Your task to perform on an android device: Open the calendar and show me this week's events? Image 0: 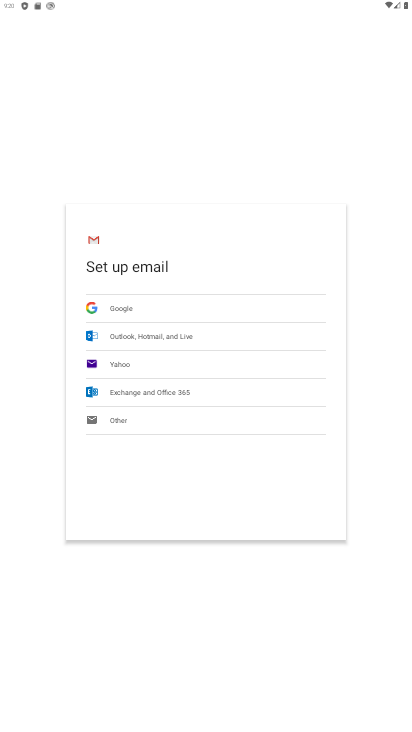
Step 0: press home button
Your task to perform on an android device: Open the calendar and show me this week's events? Image 1: 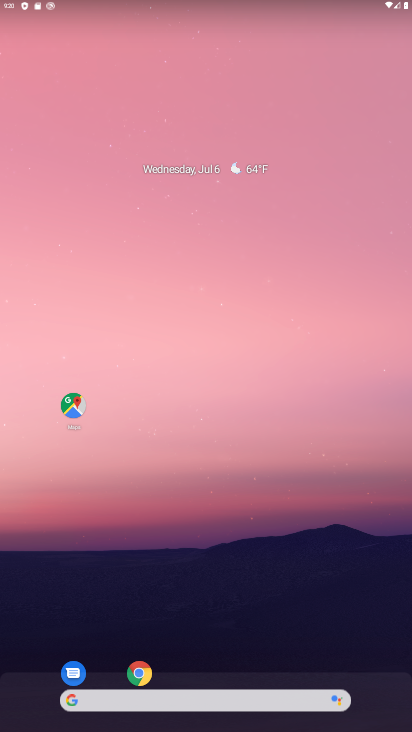
Step 1: drag from (186, 677) to (328, 3)
Your task to perform on an android device: Open the calendar and show me this week's events? Image 2: 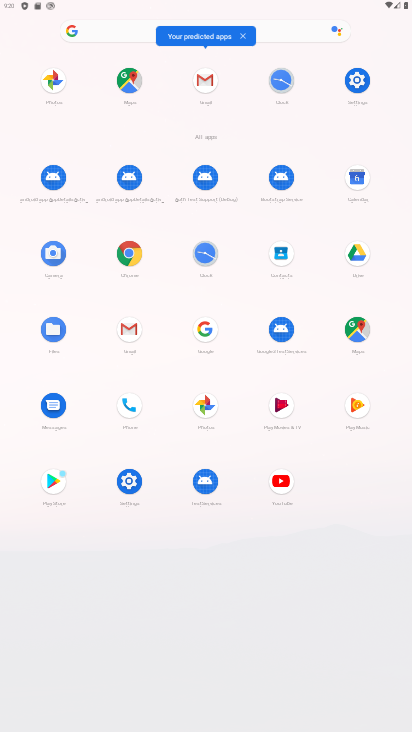
Step 2: click (354, 175)
Your task to perform on an android device: Open the calendar and show me this week's events? Image 3: 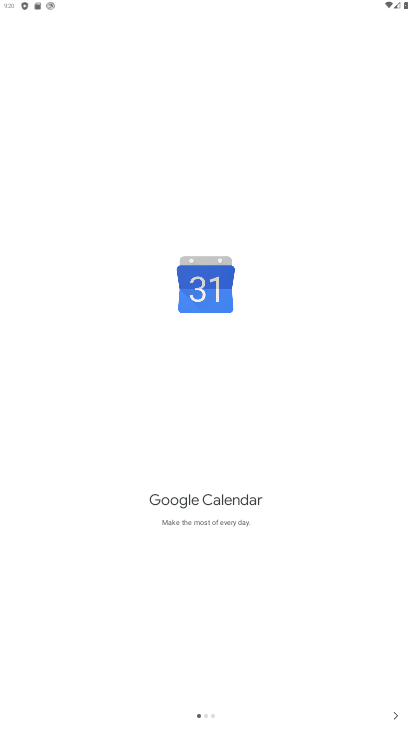
Step 3: click (398, 715)
Your task to perform on an android device: Open the calendar and show me this week's events? Image 4: 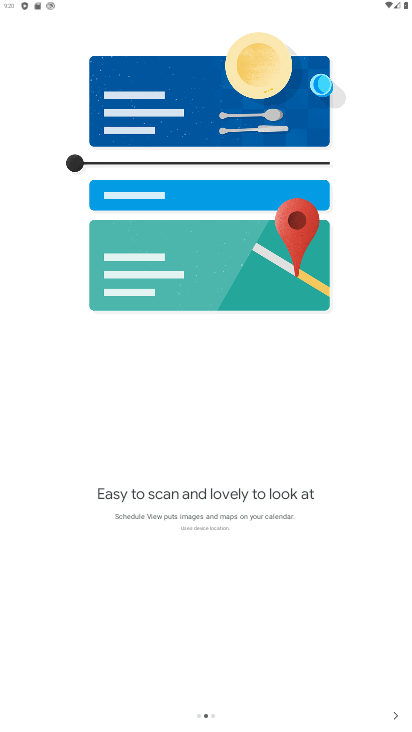
Step 4: click (395, 717)
Your task to perform on an android device: Open the calendar and show me this week's events? Image 5: 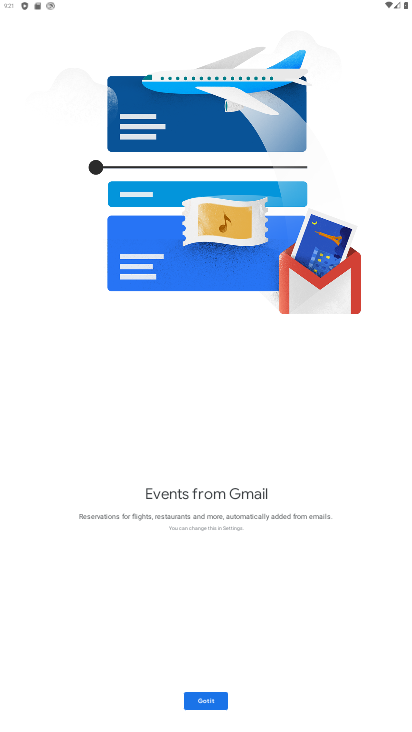
Step 5: click (190, 705)
Your task to perform on an android device: Open the calendar and show me this week's events? Image 6: 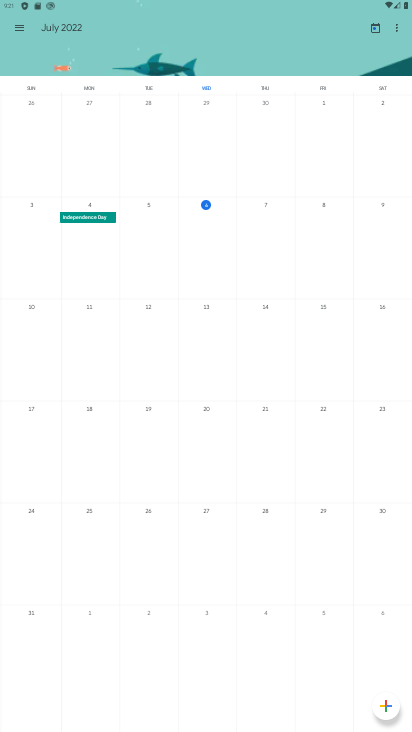
Step 6: click (25, 13)
Your task to perform on an android device: Open the calendar and show me this week's events? Image 7: 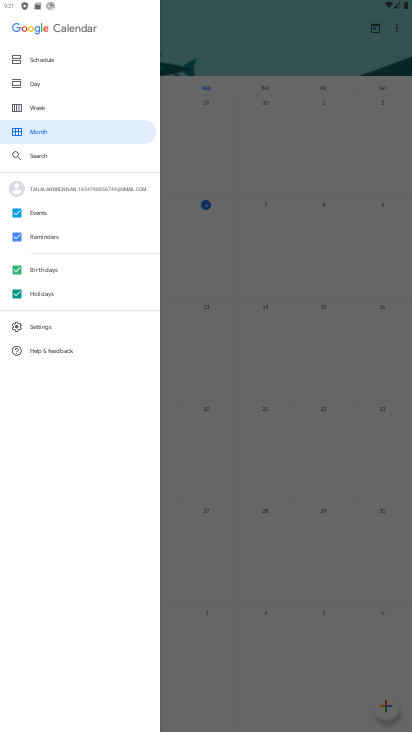
Step 7: click (61, 106)
Your task to perform on an android device: Open the calendar and show me this week's events? Image 8: 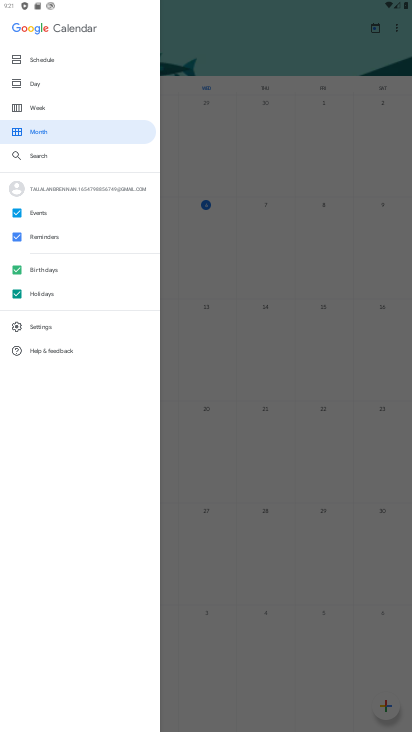
Step 8: click (47, 110)
Your task to perform on an android device: Open the calendar and show me this week's events? Image 9: 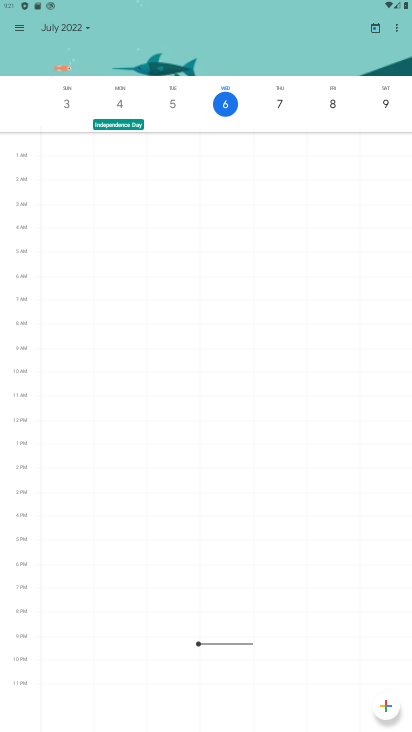
Step 9: task complete